Your task to perform on an android device: Search for logitech g pro on amazon, select the first entry, and add it to the cart. Image 0: 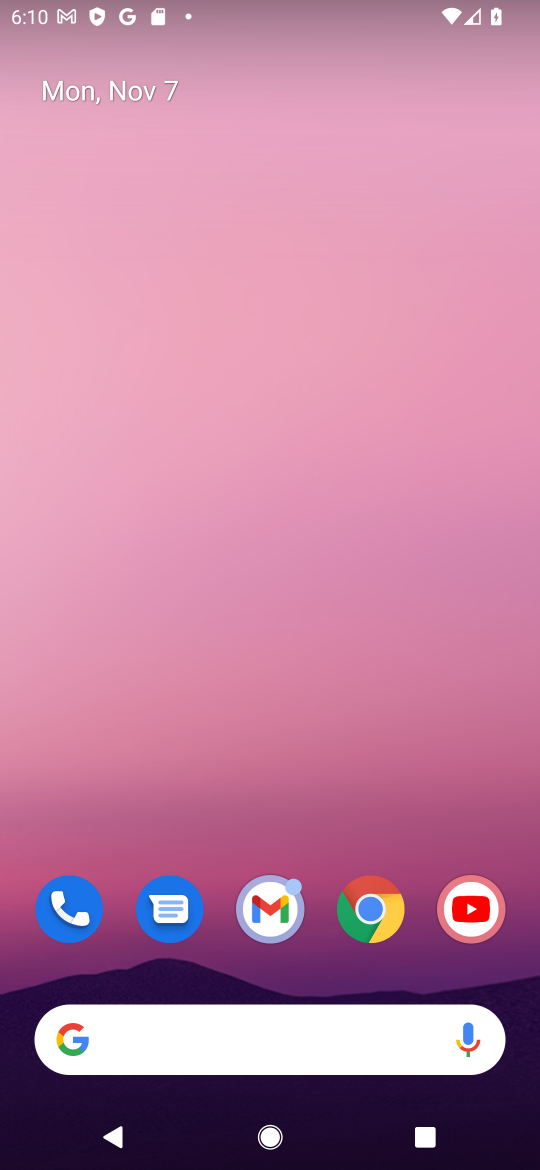
Step 0: task complete